Your task to perform on an android device: set the timer Image 0: 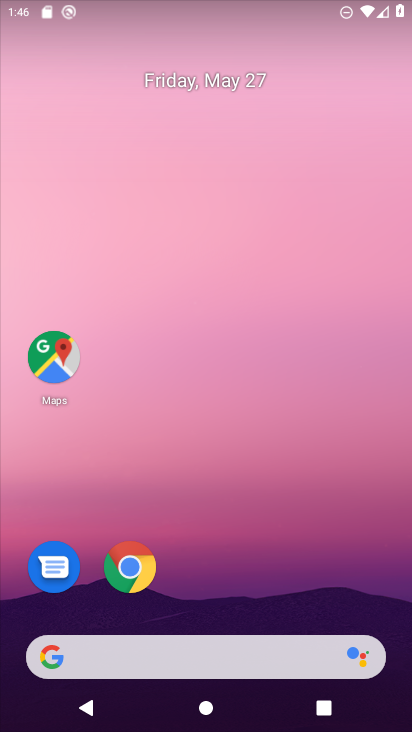
Step 0: drag from (246, 608) to (183, 41)
Your task to perform on an android device: set the timer Image 1: 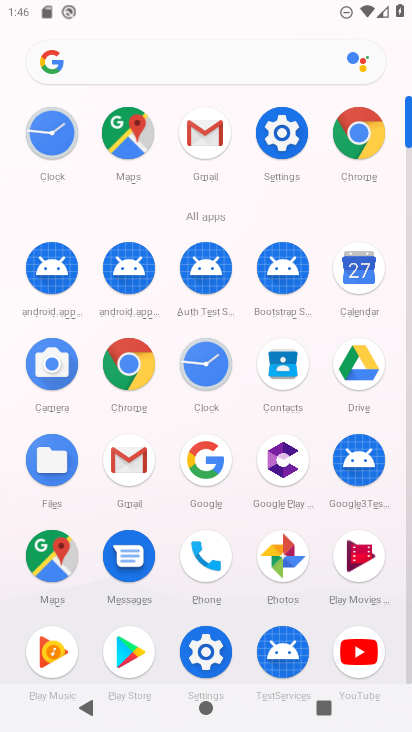
Step 1: click (215, 357)
Your task to perform on an android device: set the timer Image 2: 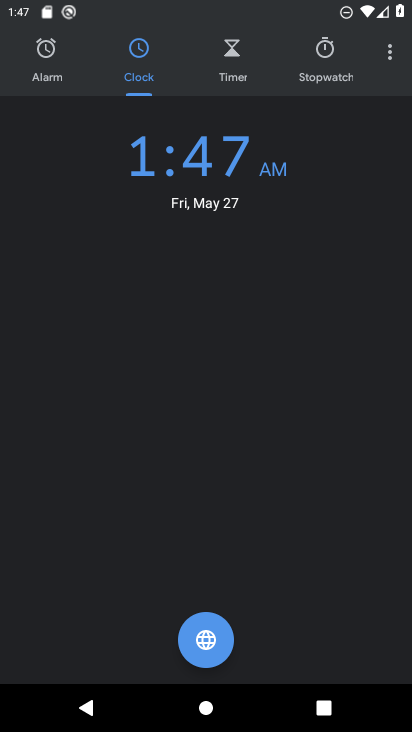
Step 2: click (231, 50)
Your task to perform on an android device: set the timer Image 3: 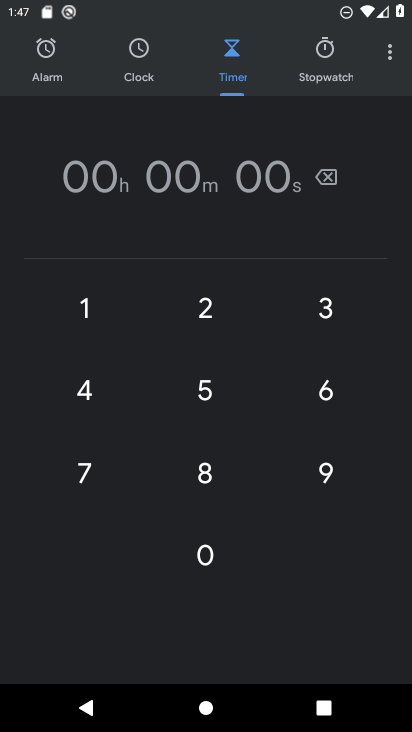
Step 3: type "100000"
Your task to perform on an android device: set the timer Image 4: 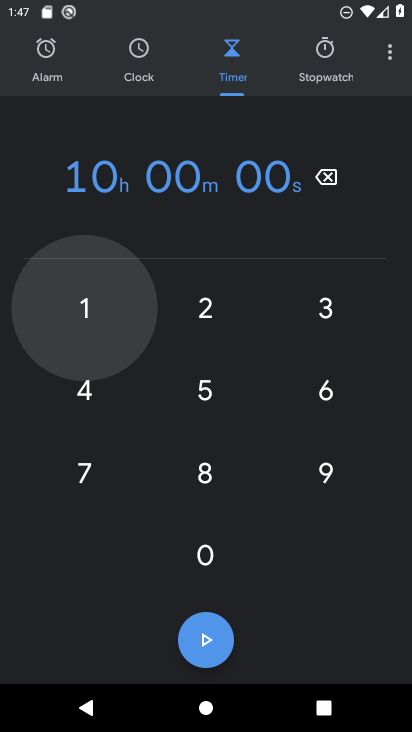
Step 4: click (204, 631)
Your task to perform on an android device: set the timer Image 5: 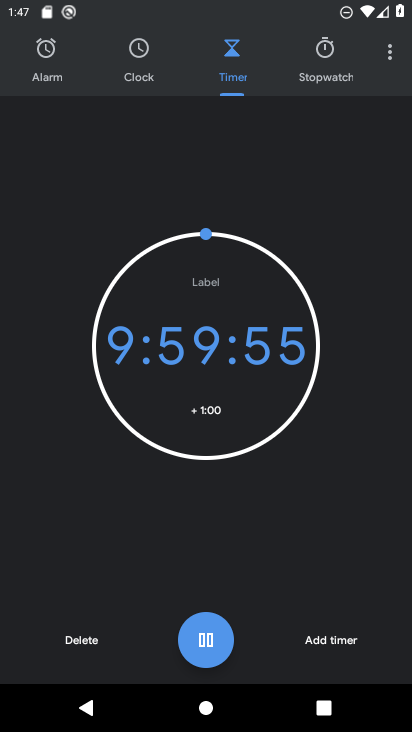
Step 5: task complete